Your task to perform on an android device: Open notification settings Image 0: 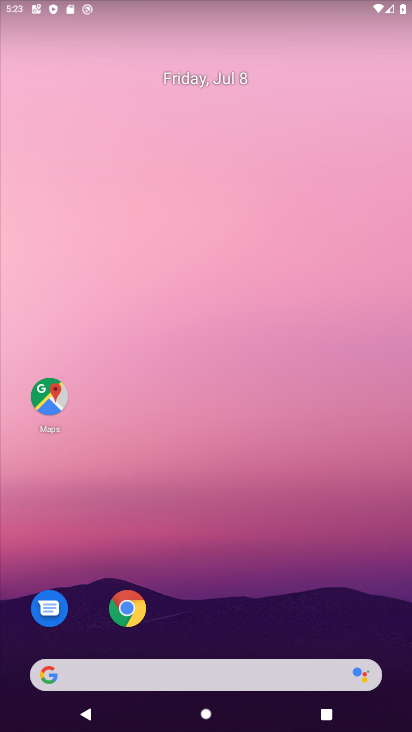
Step 0: drag from (217, 657) to (279, 231)
Your task to perform on an android device: Open notification settings Image 1: 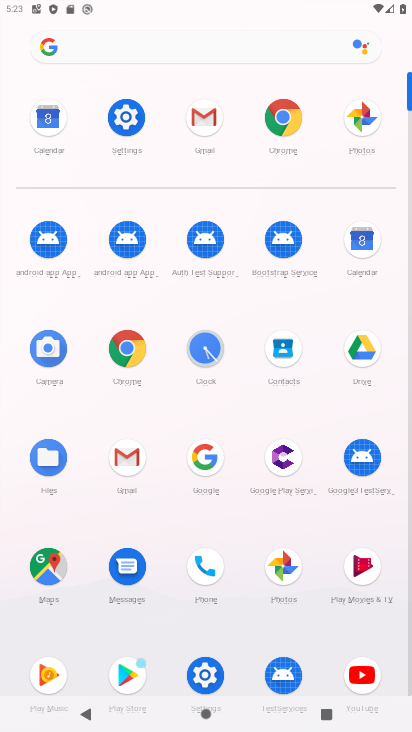
Step 1: click (130, 121)
Your task to perform on an android device: Open notification settings Image 2: 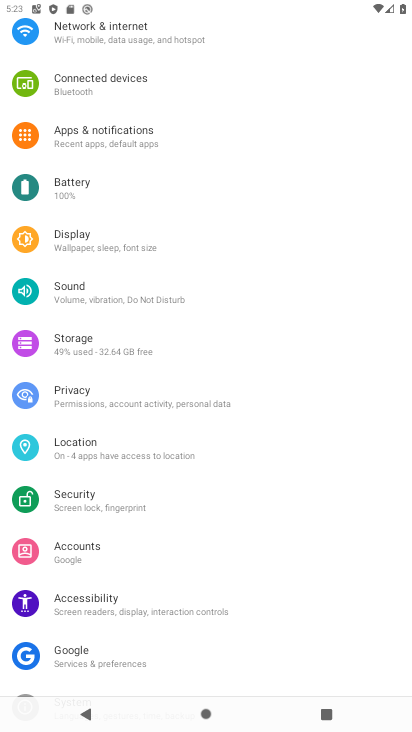
Step 2: click (162, 141)
Your task to perform on an android device: Open notification settings Image 3: 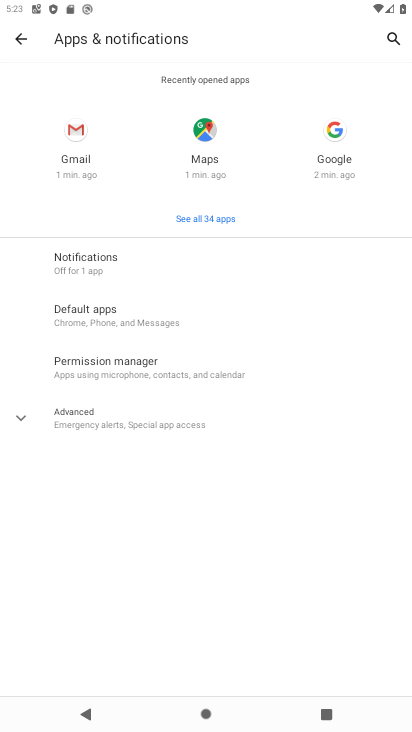
Step 3: click (108, 258)
Your task to perform on an android device: Open notification settings Image 4: 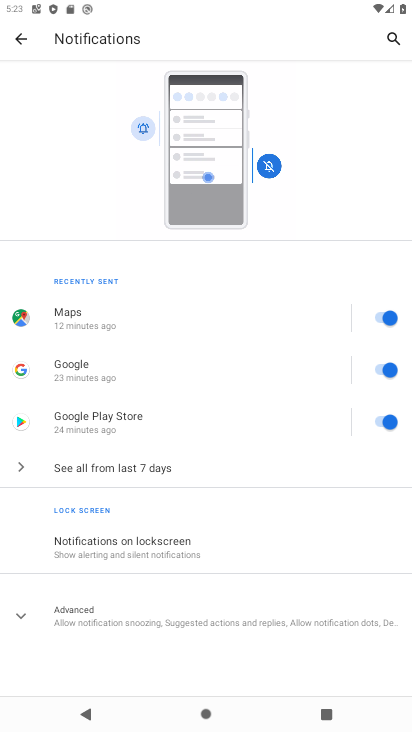
Step 4: task complete